Your task to perform on an android device: Go to CNN.com Image 0: 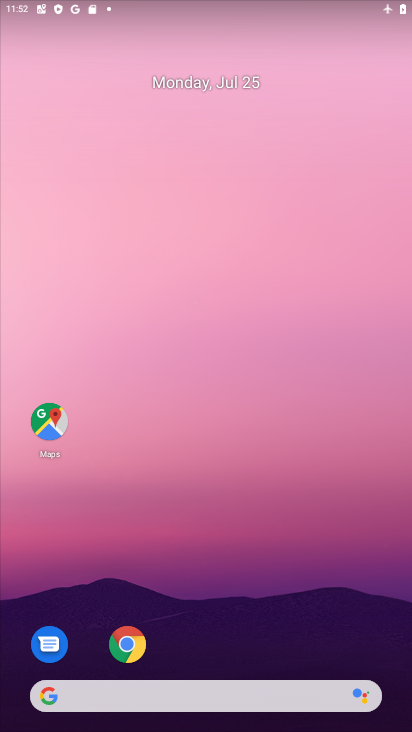
Step 0: click (135, 645)
Your task to perform on an android device: Go to CNN.com Image 1: 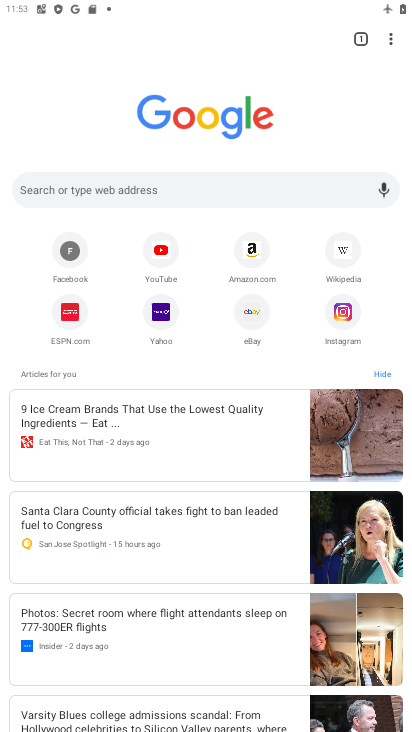
Step 1: click (92, 187)
Your task to perform on an android device: Go to CNN.com Image 2: 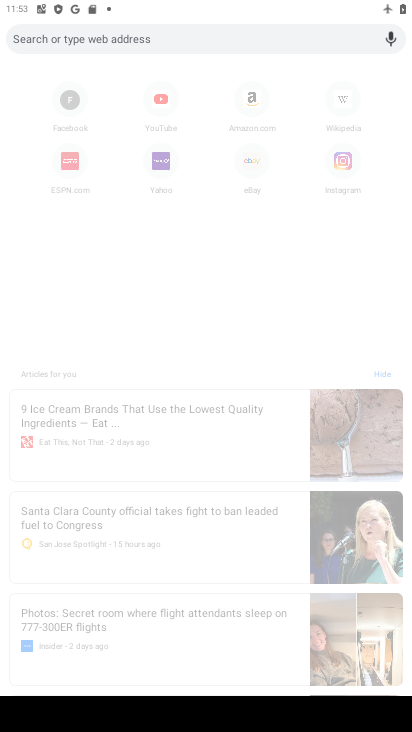
Step 2: type "cnn.com"
Your task to perform on an android device: Go to CNN.com Image 3: 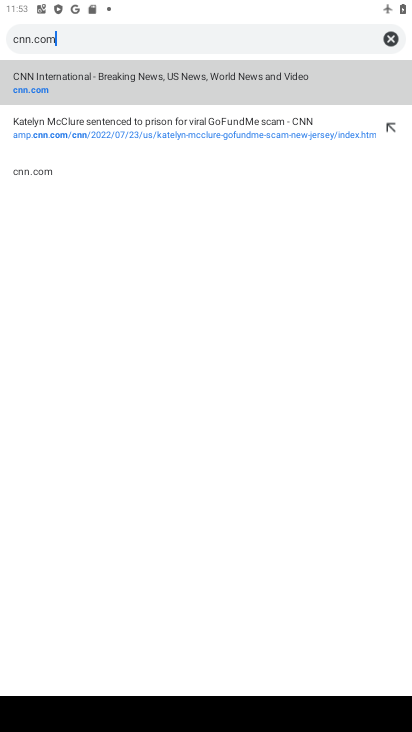
Step 3: click (36, 91)
Your task to perform on an android device: Go to CNN.com Image 4: 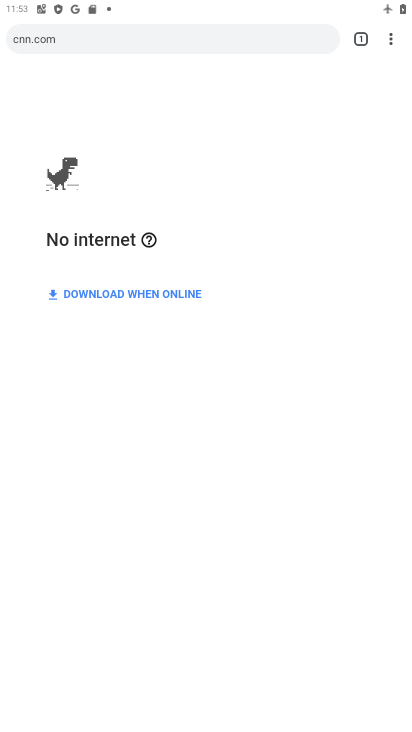
Step 4: task complete